Your task to perform on an android device: open app "NewsBreak: Local News & Alerts" (install if not already installed) Image 0: 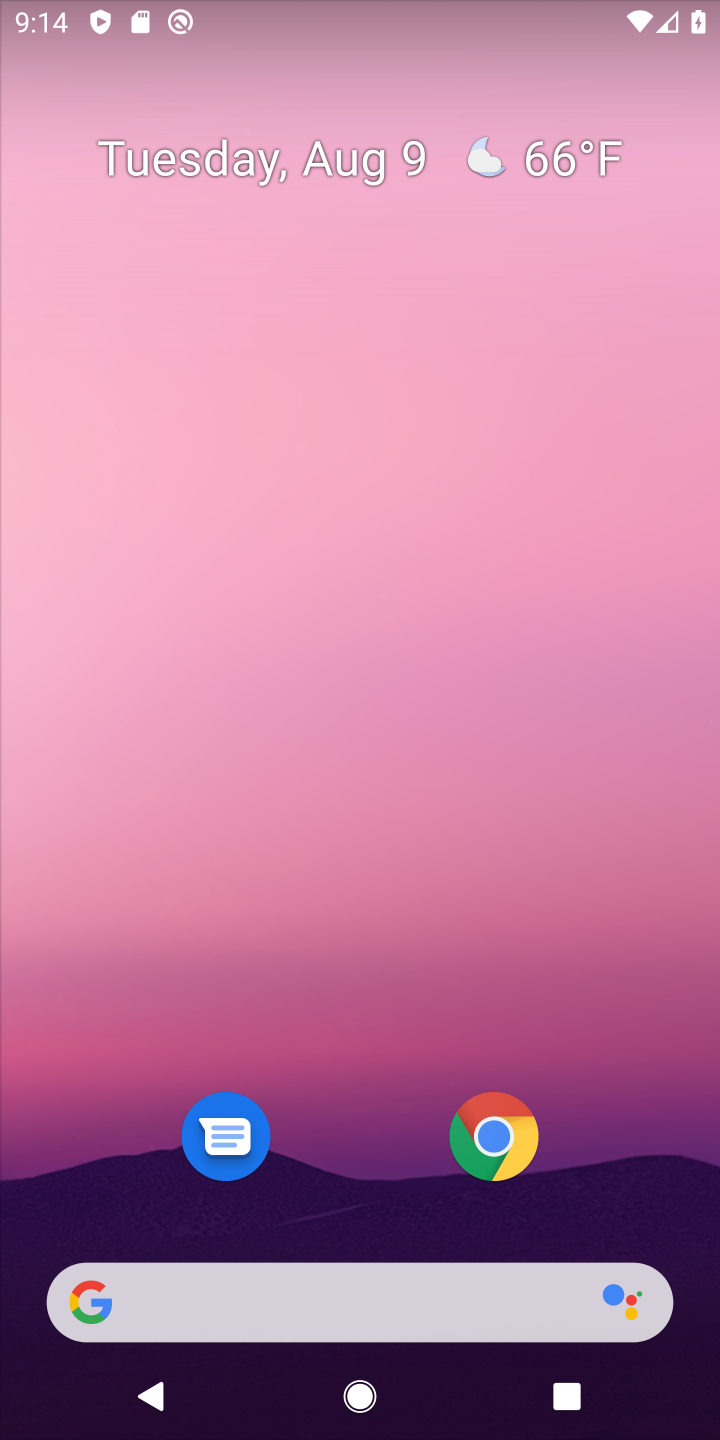
Step 0: press home button
Your task to perform on an android device: open app "NewsBreak: Local News & Alerts" (install if not already installed) Image 1: 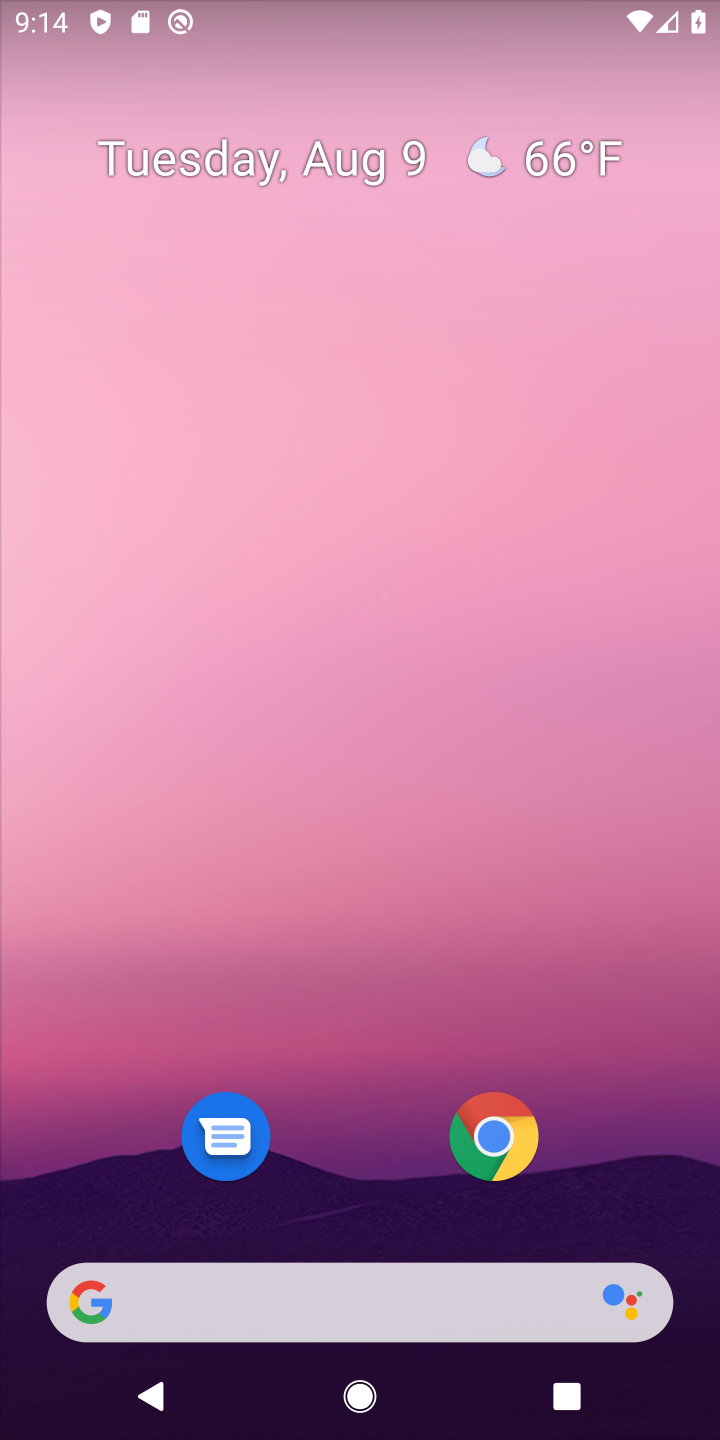
Step 1: drag from (379, 1215) to (356, 191)
Your task to perform on an android device: open app "NewsBreak: Local News & Alerts" (install if not already installed) Image 2: 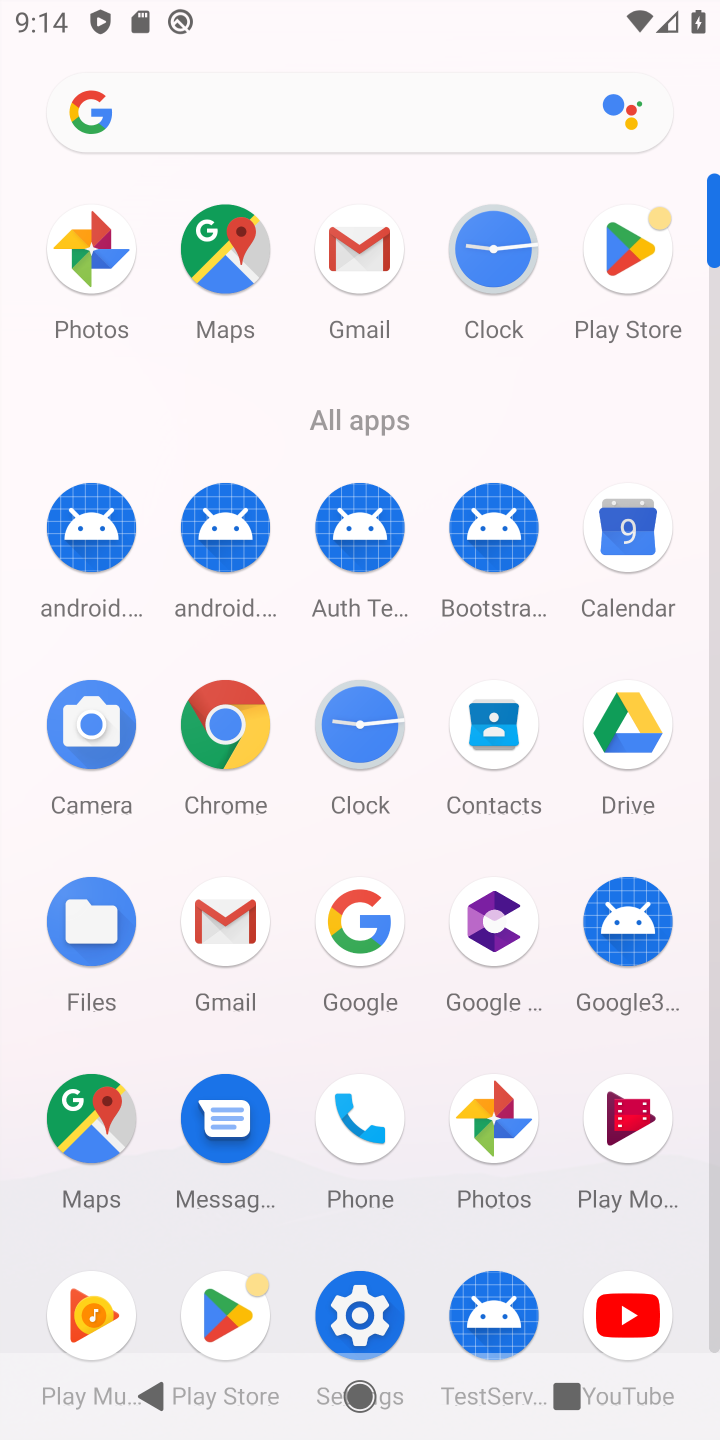
Step 2: click (207, 1310)
Your task to perform on an android device: open app "NewsBreak: Local News & Alerts" (install if not already installed) Image 3: 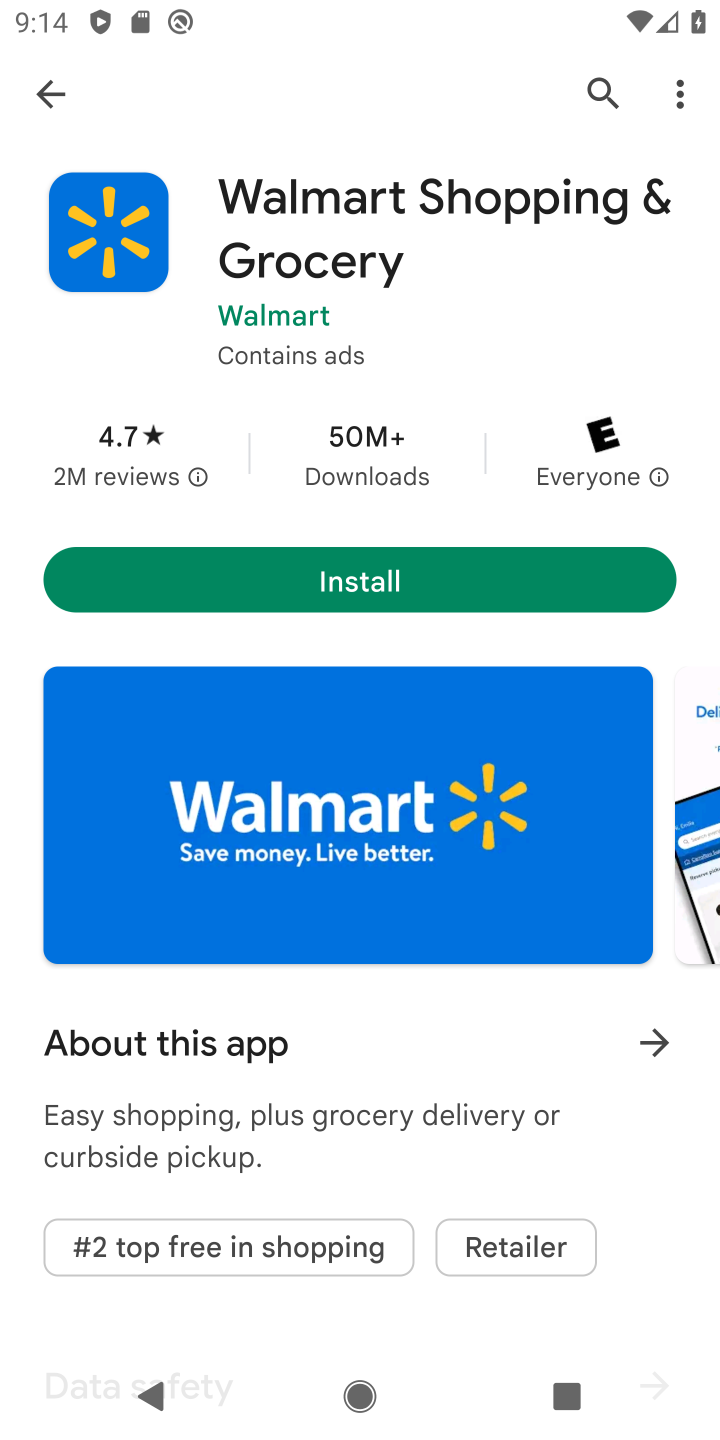
Step 3: click (598, 92)
Your task to perform on an android device: open app "NewsBreak: Local News & Alerts" (install if not already installed) Image 4: 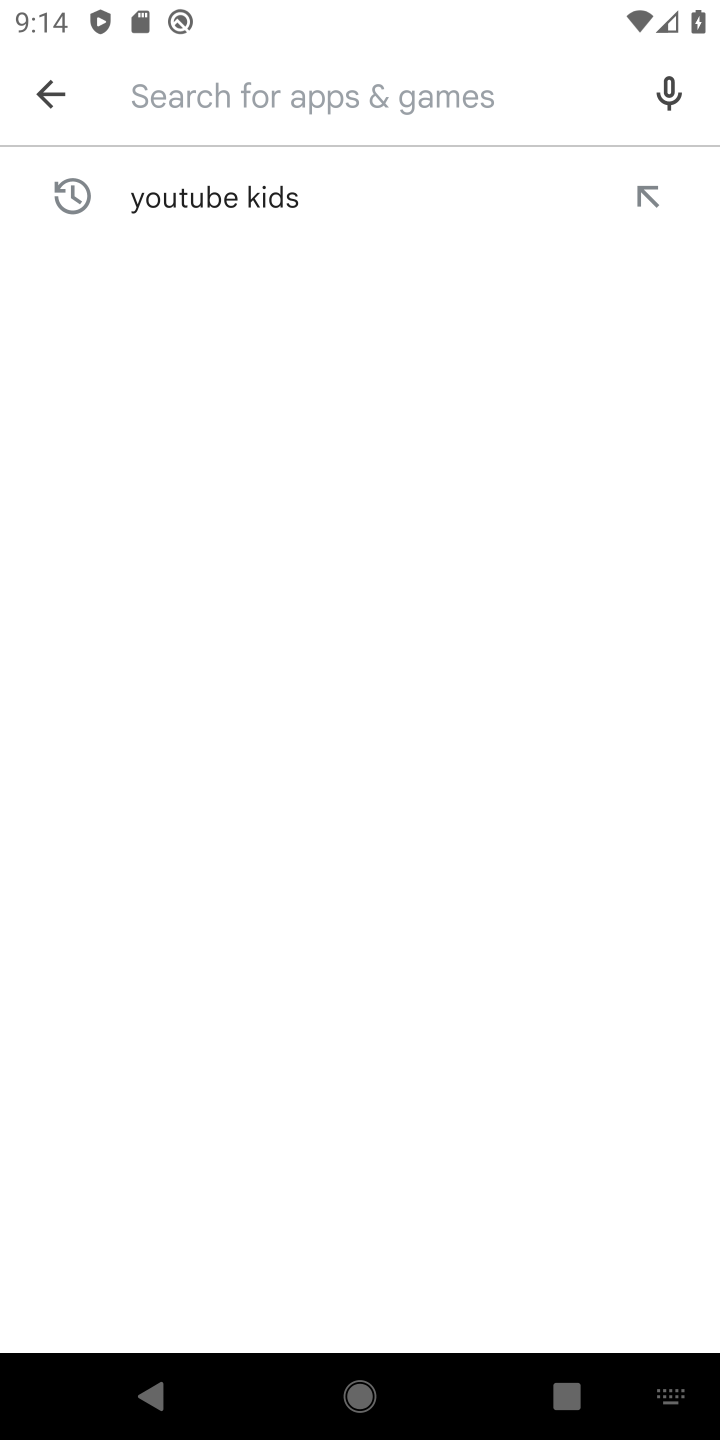
Step 4: type "NewsBreak: Local News & Alerts"
Your task to perform on an android device: open app "NewsBreak: Local News & Alerts" (install if not already installed) Image 5: 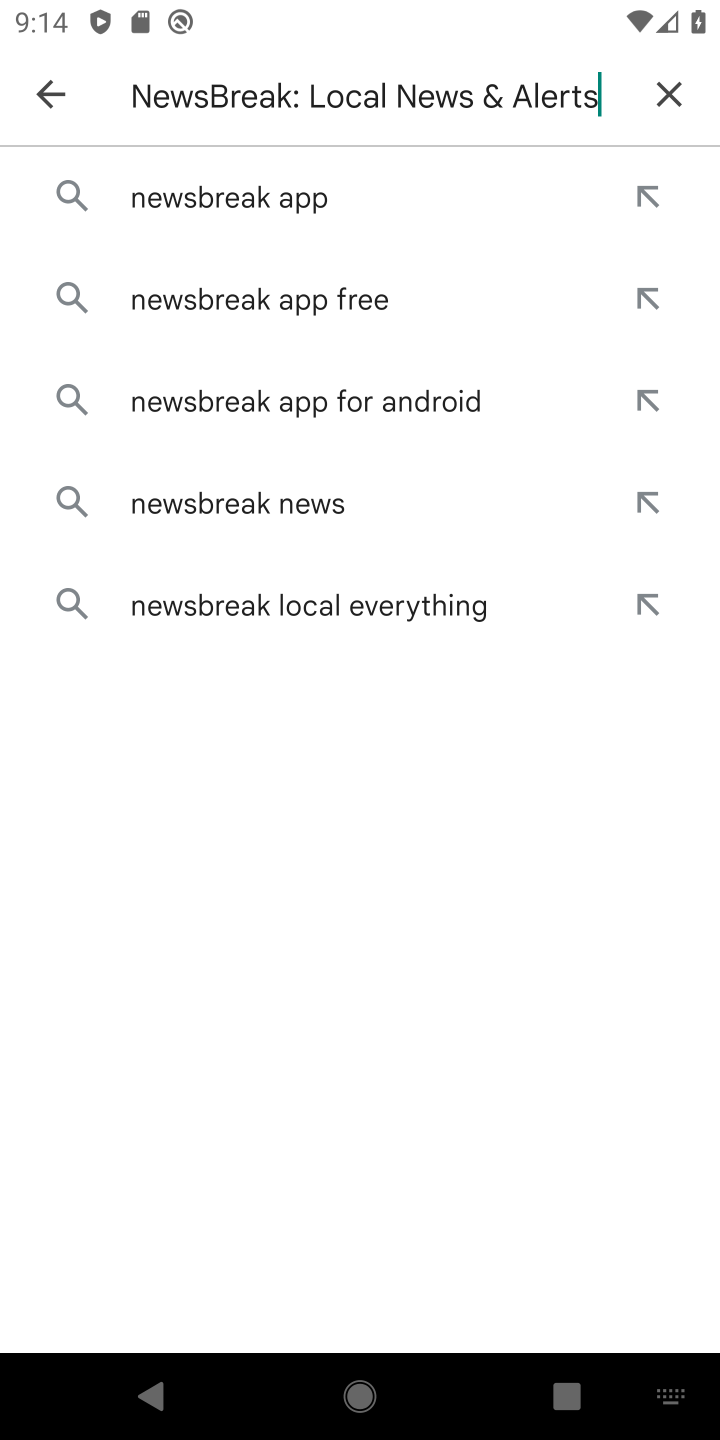
Step 5: type ""
Your task to perform on an android device: open app "NewsBreak: Local News & Alerts" (install if not already installed) Image 6: 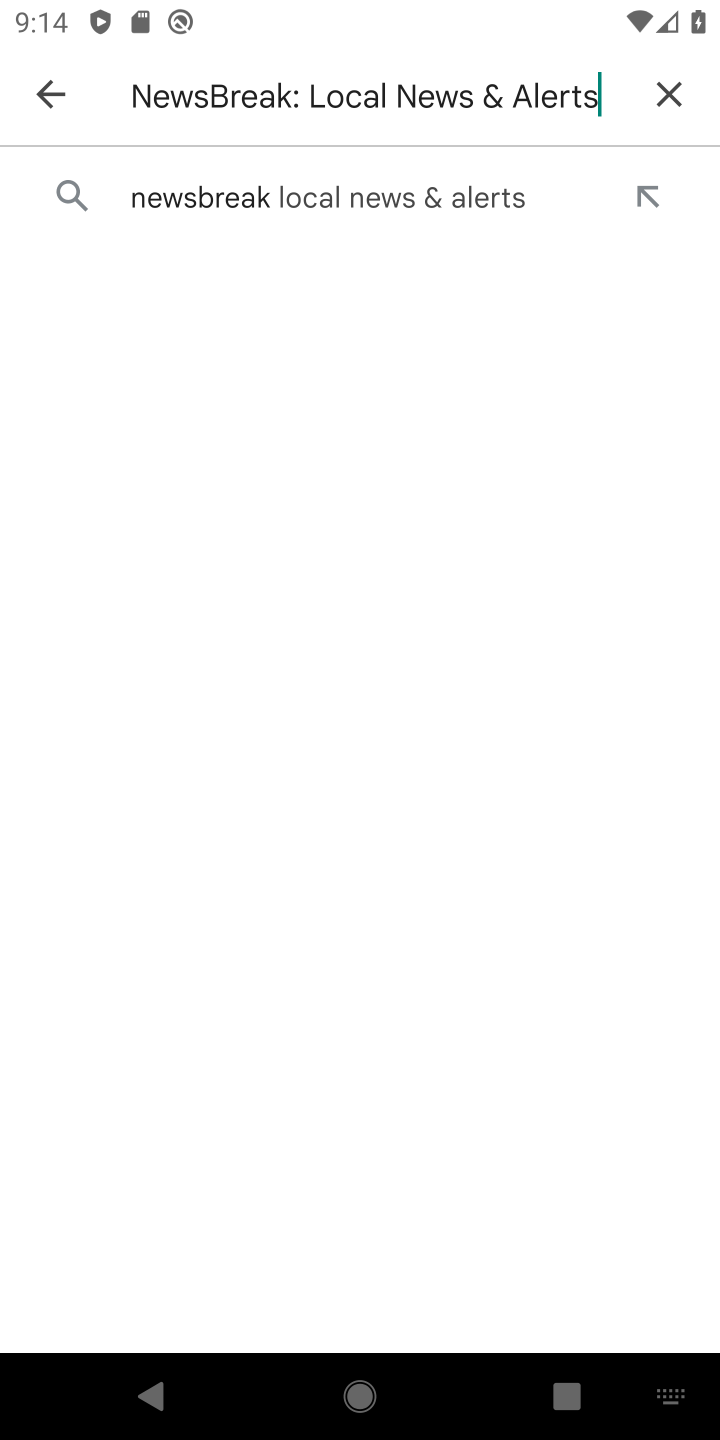
Step 6: click (351, 197)
Your task to perform on an android device: open app "NewsBreak: Local News & Alerts" (install if not already installed) Image 7: 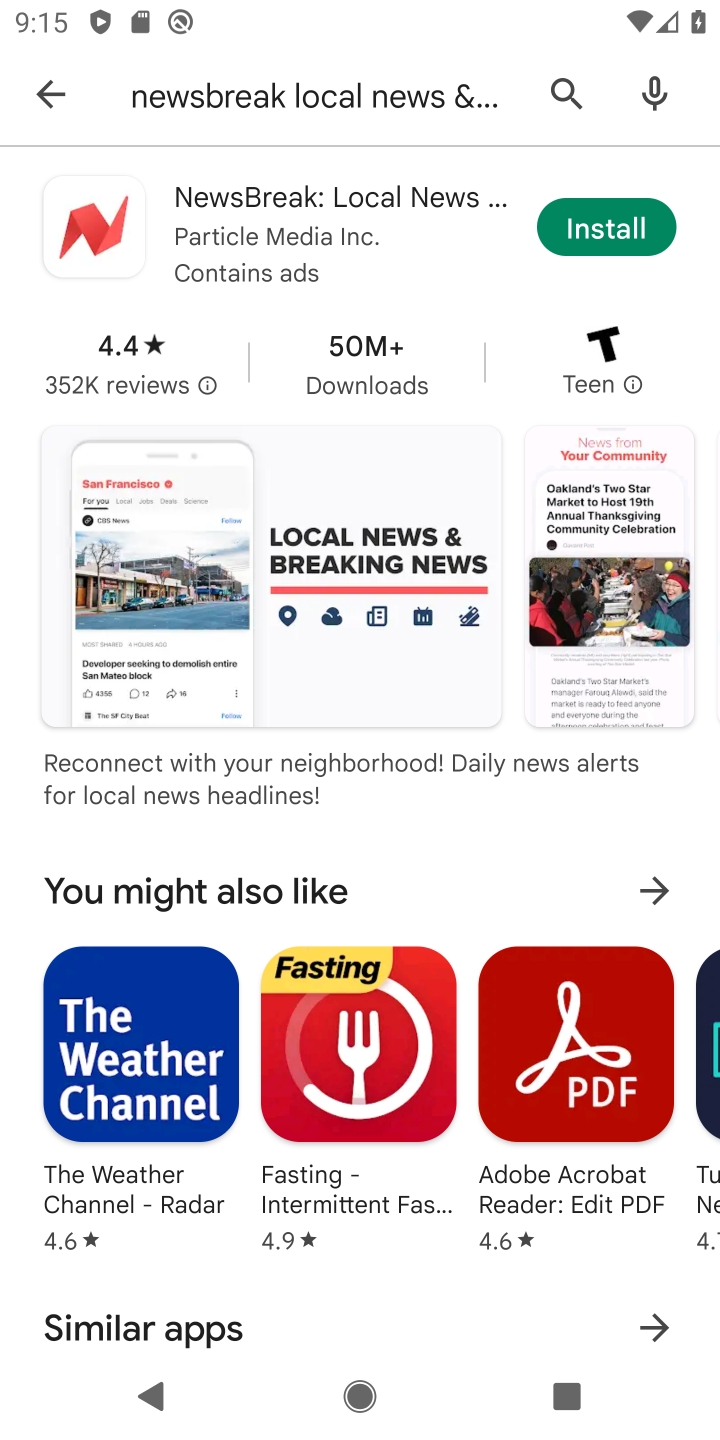
Step 7: click (619, 218)
Your task to perform on an android device: open app "NewsBreak: Local News & Alerts" (install if not already installed) Image 8: 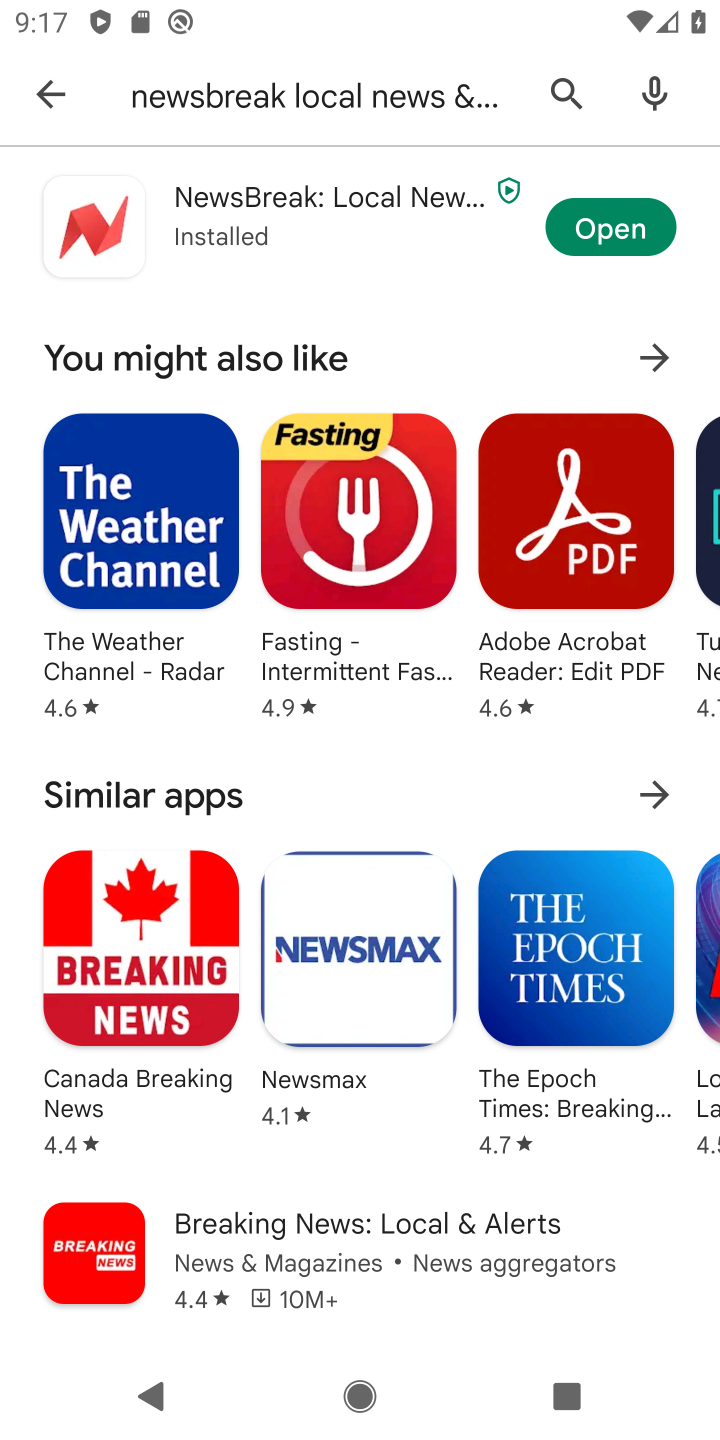
Step 8: click (603, 224)
Your task to perform on an android device: open app "NewsBreak: Local News & Alerts" (install if not already installed) Image 9: 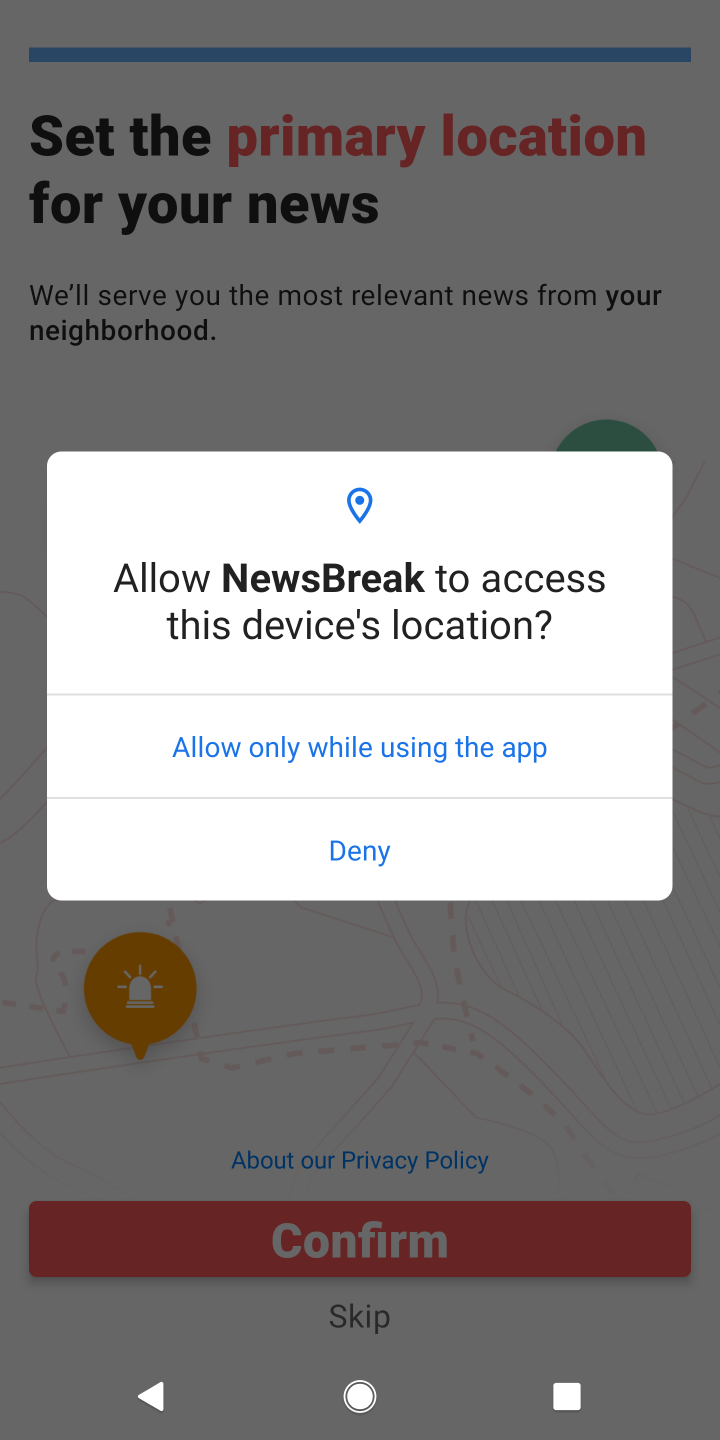
Step 9: click (333, 740)
Your task to perform on an android device: open app "NewsBreak: Local News & Alerts" (install if not already installed) Image 10: 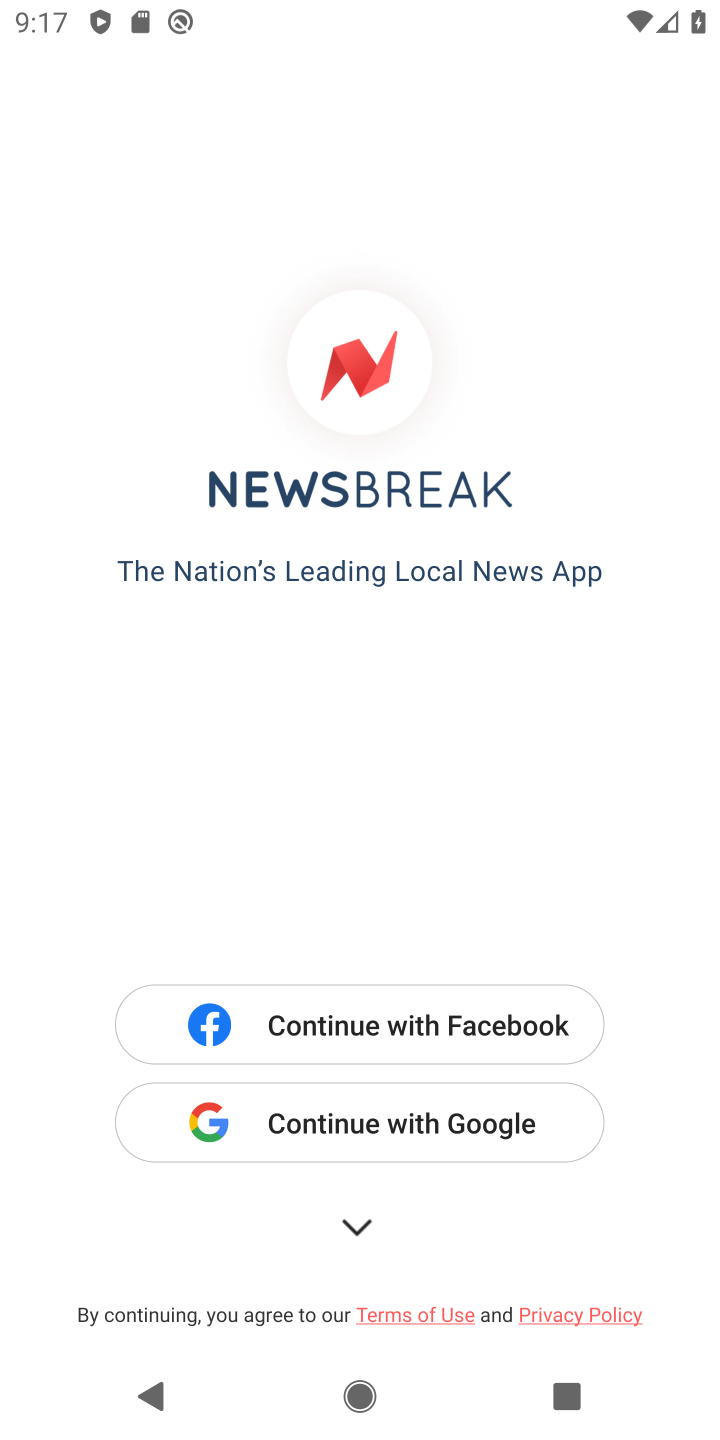
Step 10: click (266, 1110)
Your task to perform on an android device: open app "NewsBreak: Local News & Alerts" (install if not already installed) Image 11: 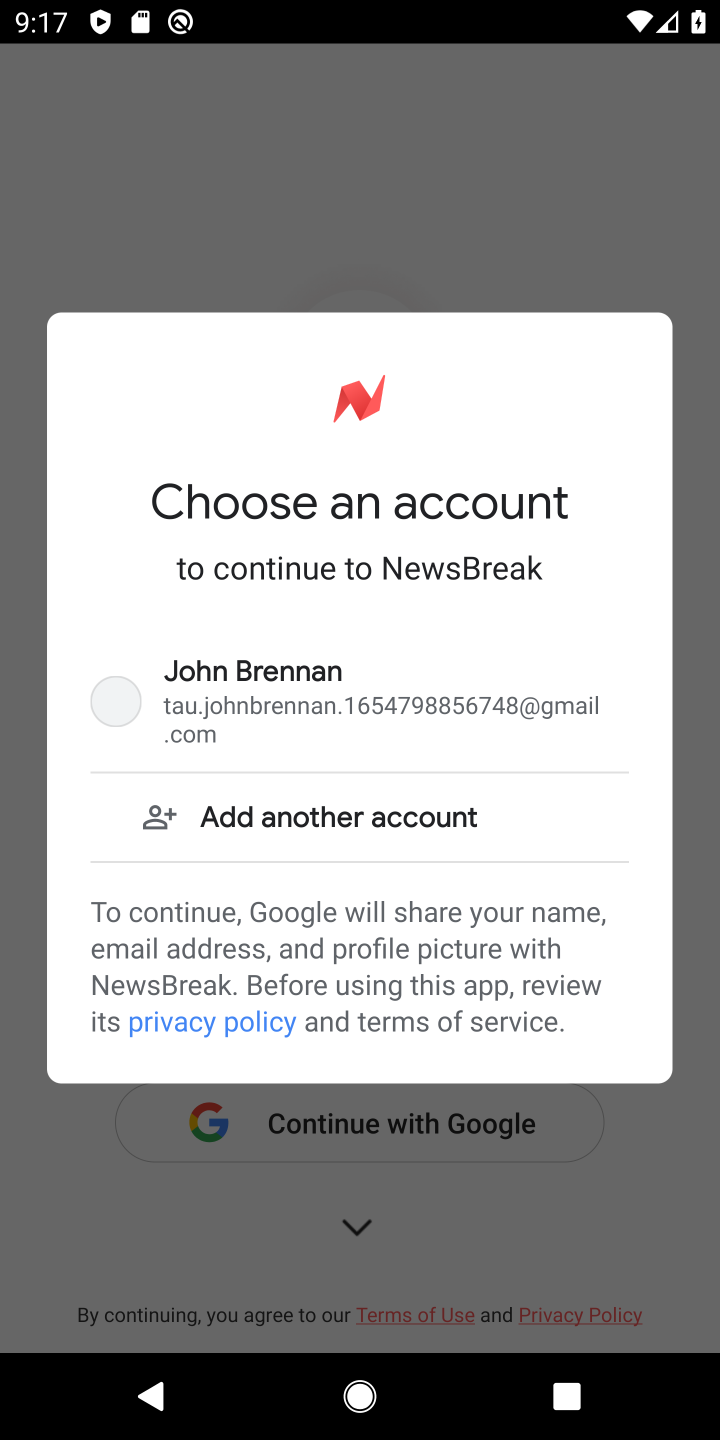
Step 11: click (191, 698)
Your task to perform on an android device: open app "NewsBreak: Local News & Alerts" (install if not already installed) Image 12: 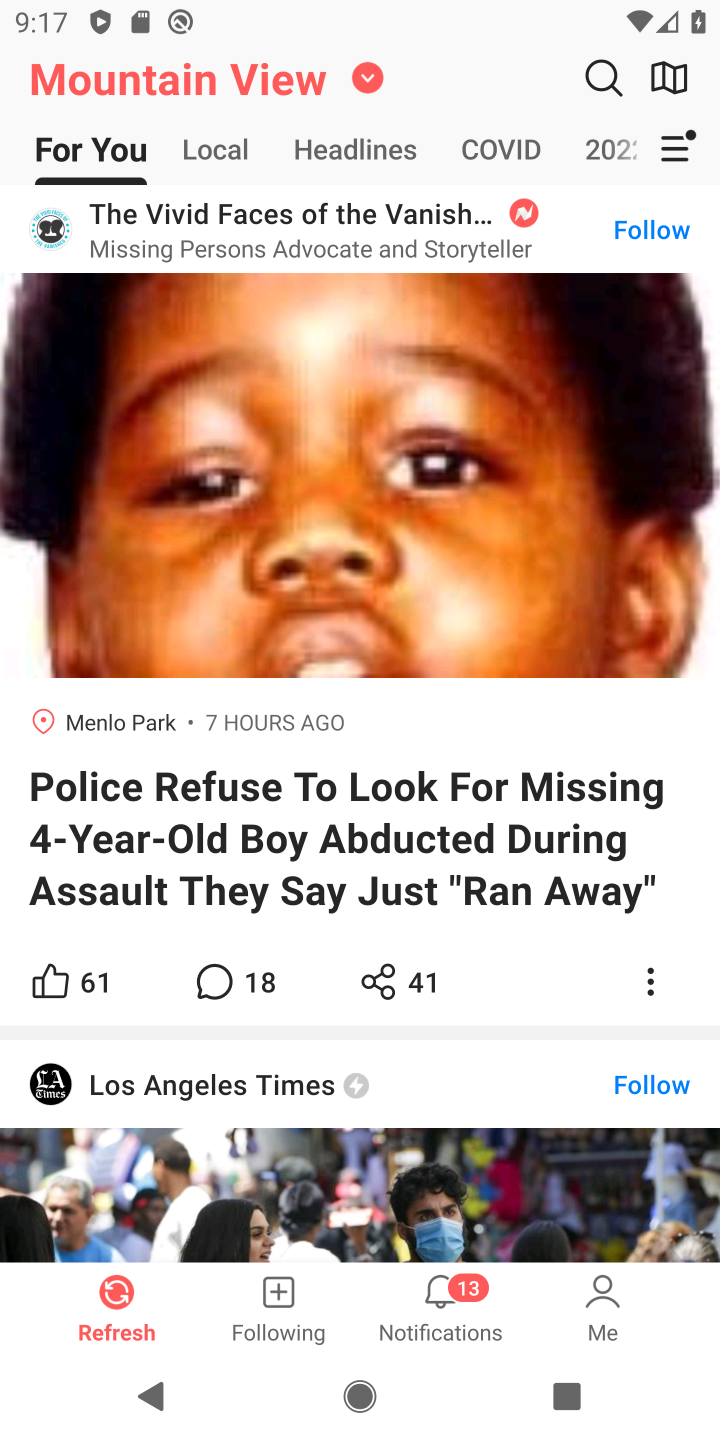
Step 12: task complete